Your task to perform on an android device: Check the weather Image 0: 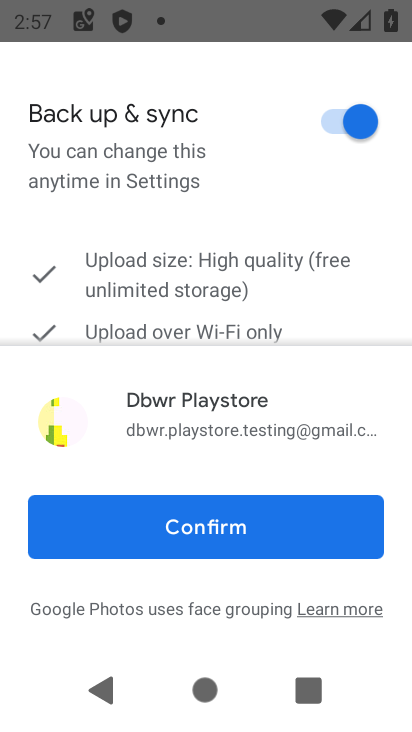
Step 0: press home button
Your task to perform on an android device: Check the weather Image 1: 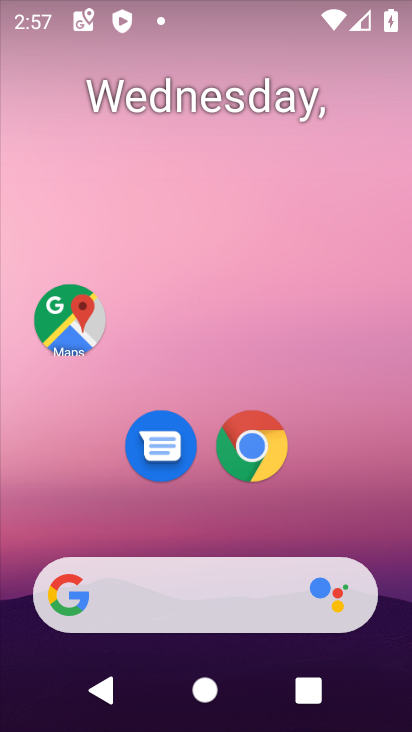
Step 1: drag from (335, 492) to (311, 536)
Your task to perform on an android device: Check the weather Image 2: 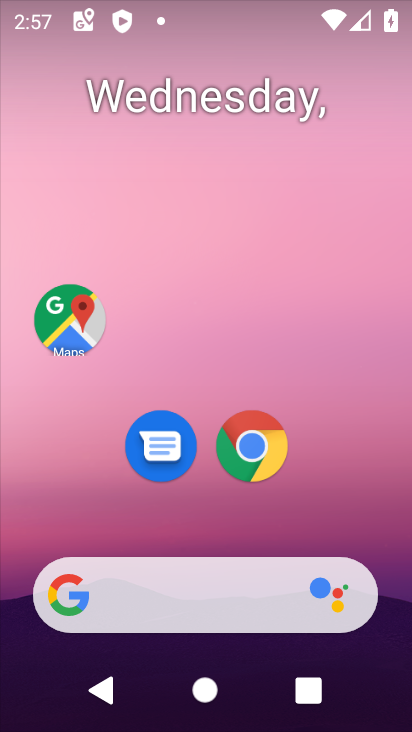
Step 2: drag from (11, 207) to (283, 191)
Your task to perform on an android device: Check the weather Image 3: 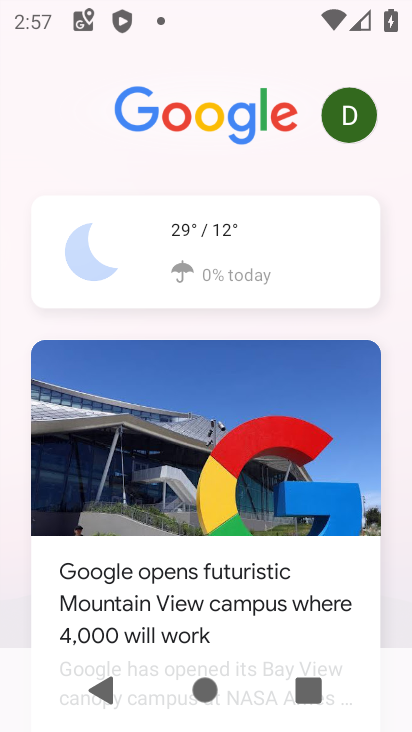
Step 3: click (262, 245)
Your task to perform on an android device: Check the weather Image 4: 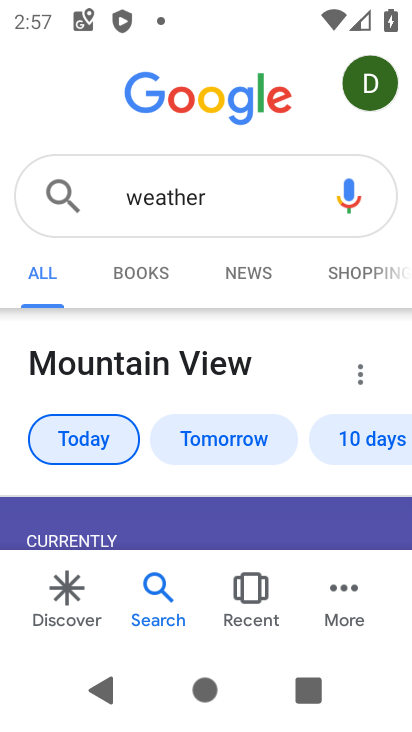
Step 4: task complete